Your task to perform on an android device: delete a single message in the gmail app Image 0: 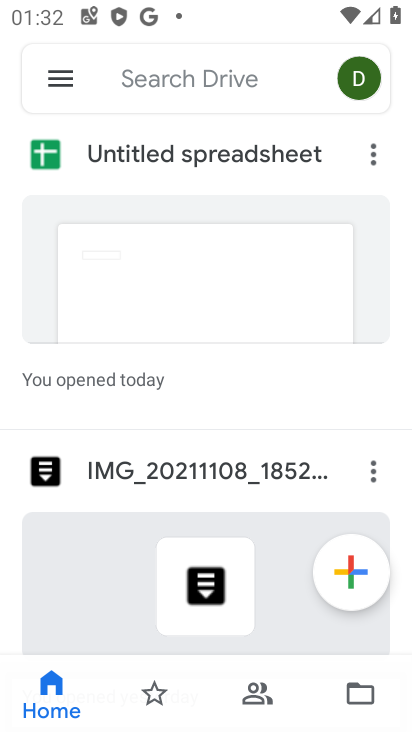
Step 0: press home button
Your task to perform on an android device: delete a single message in the gmail app Image 1: 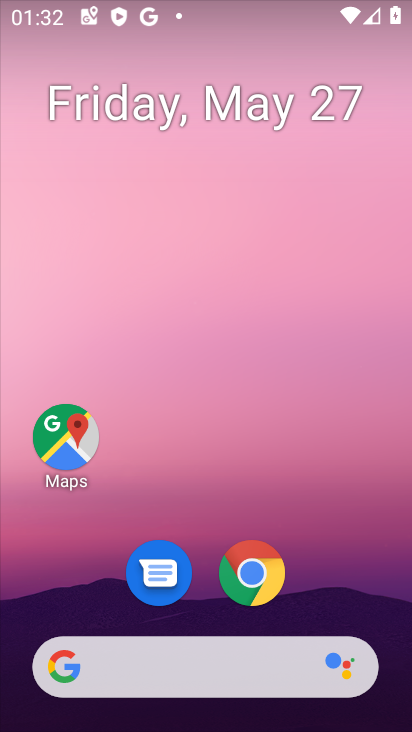
Step 1: drag from (165, 641) to (175, 46)
Your task to perform on an android device: delete a single message in the gmail app Image 2: 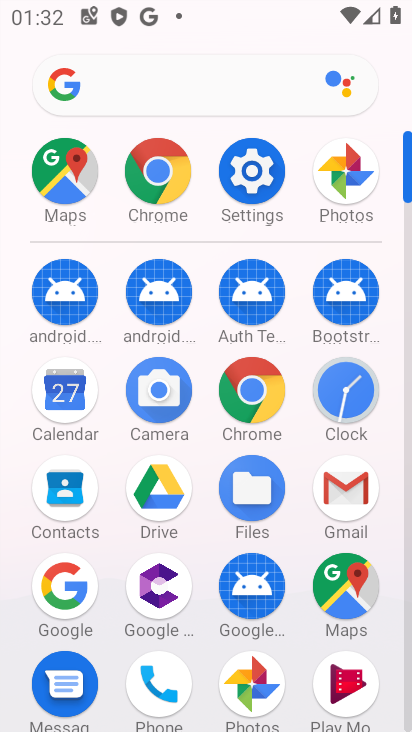
Step 2: click (351, 510)
Your task to perform on an android device: delete a single message in the gmail app Image 3: 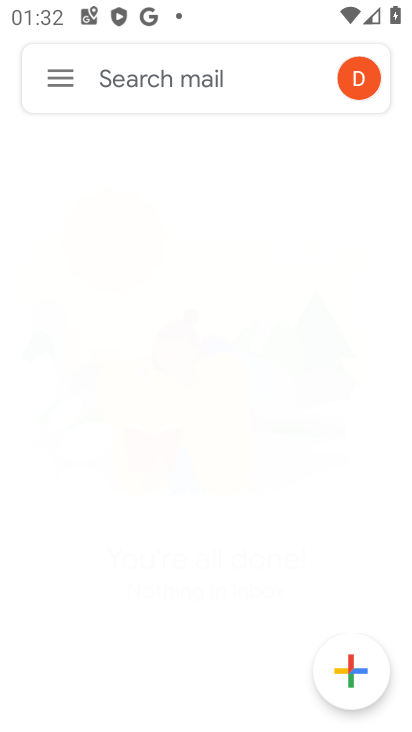
Step 3: click (60, 83)
Your task to perform on an android device: delete a single message in the gmail app Image 4: 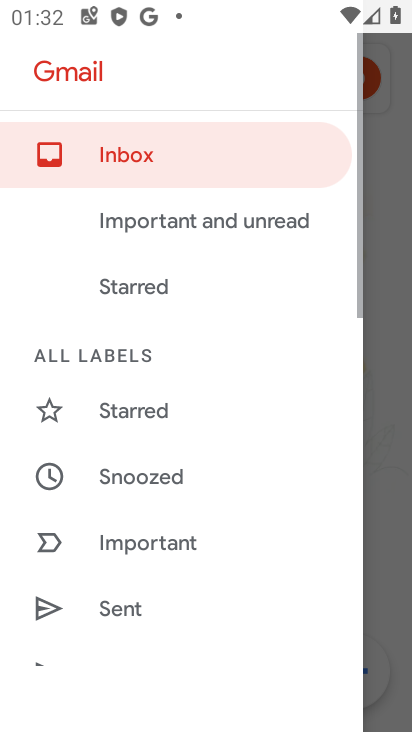
Step 4: drag from (137, 562) to (162, 218)
Your task to perform on an android device: delete a single message in the gmail app Image 5: 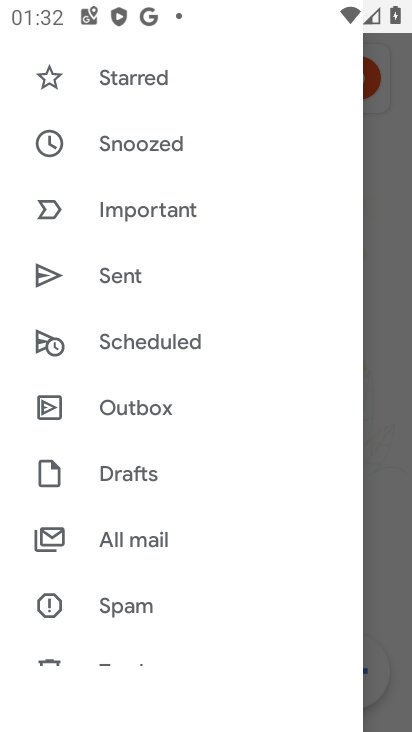
Step 5: click (149, 530)
Your task to perform on an android device: delete a single message in the gmail app Image 6: 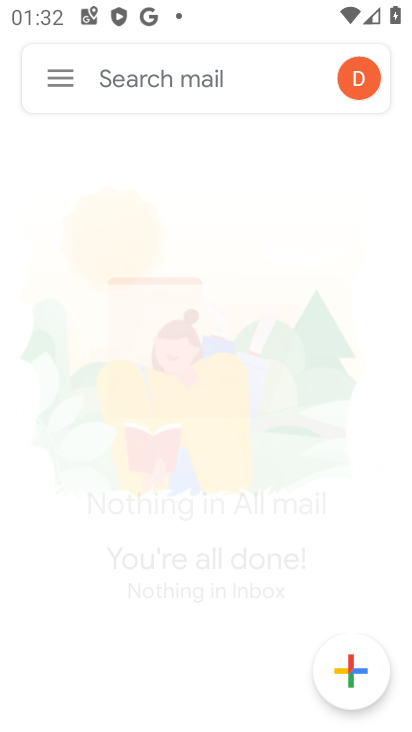
Step 6: task complete